Your task to perform on an android device: Go to privacy settings Image 0: 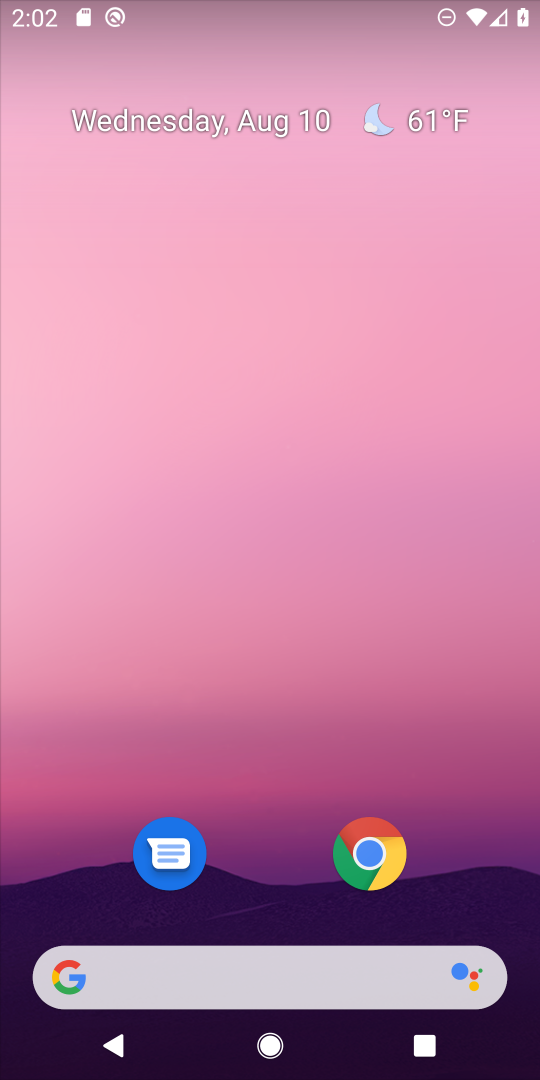
Step 0: drag from (322, 712) to (328, 152)
Your task to perform on an android device: Go to privacy settings Image 1: 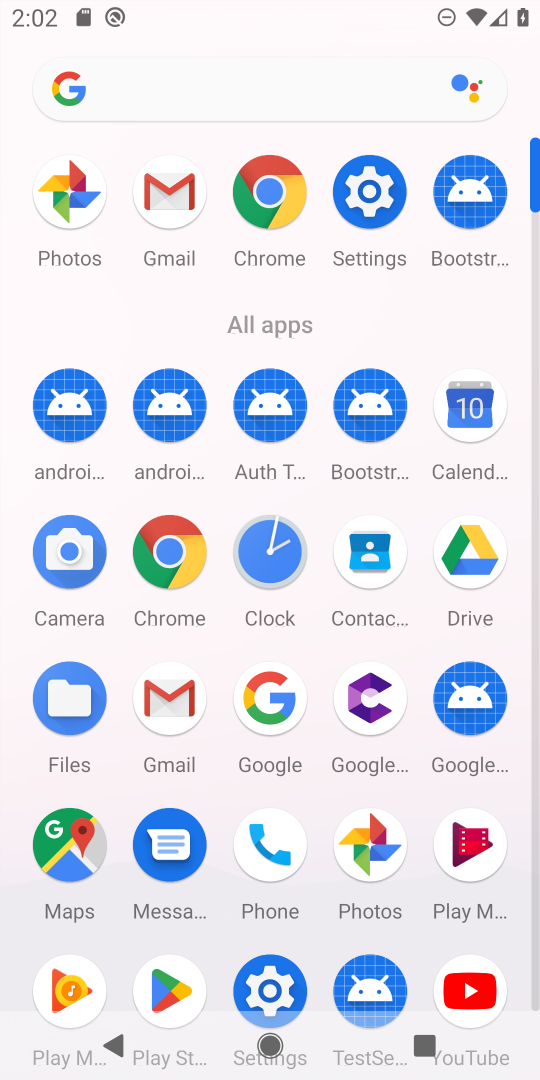
Step 1: click (273, 987)
Your task to perform on an android device: Go to privacy settings Image 2: 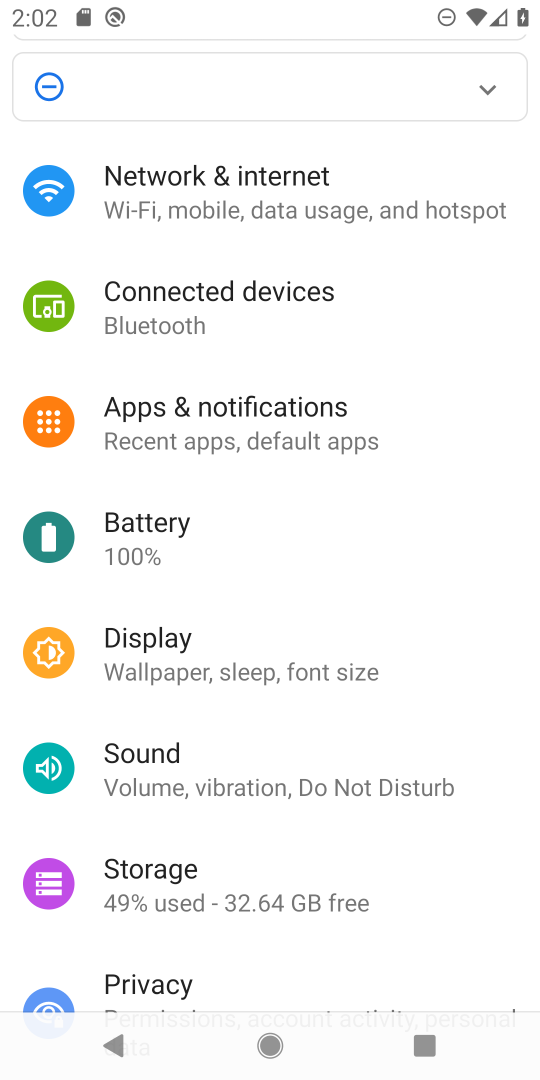
Step 2: click (156, 986)
Your task to perform on an android device: Go to privacy settings Image 3: 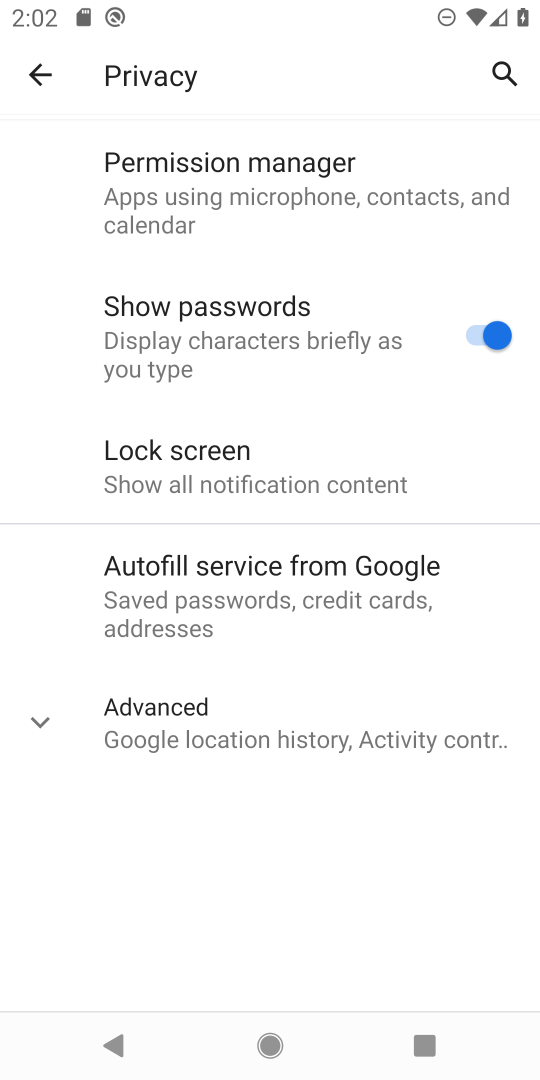
Step 3: task complete